Your task to perform on an android device: turn on the 12-hour format for clock Image 0: 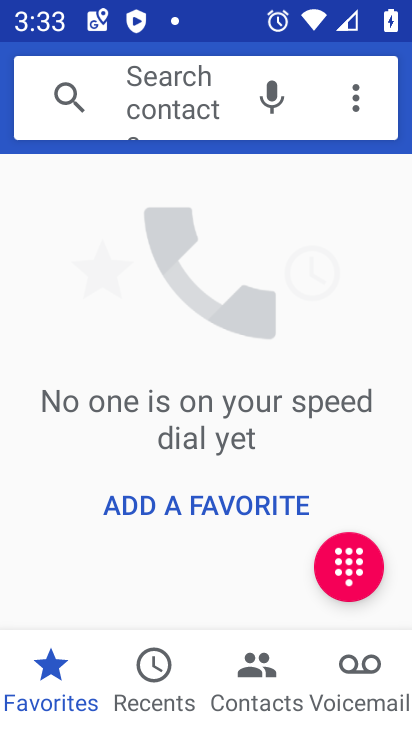
Step 0: press home button
Your task to perform on an android device: turn on the 12-hour format for clock Image 1: 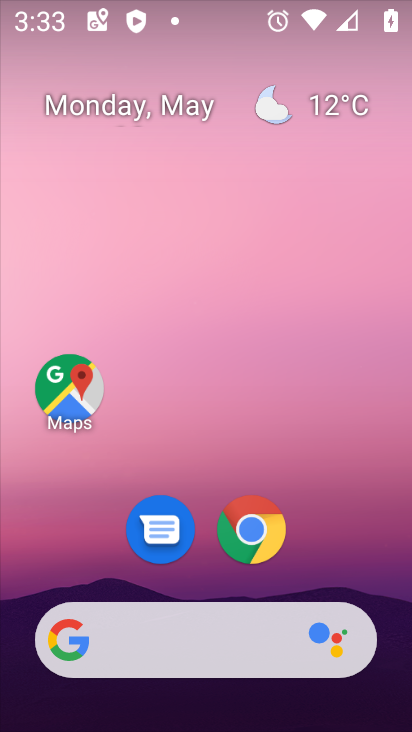
Step 1: drag from (337, 557) to (393, 397)
Your task to perform on an android device: turn on the 12-hour format for clock Image 2: 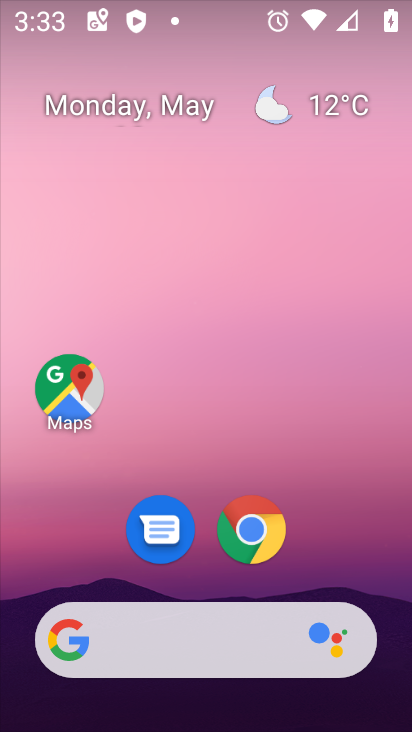
Step 2: drag from (329, 581) to (334, 0)
Your task to perform on an android device: turn on the 12-hour format for clock Image 3: 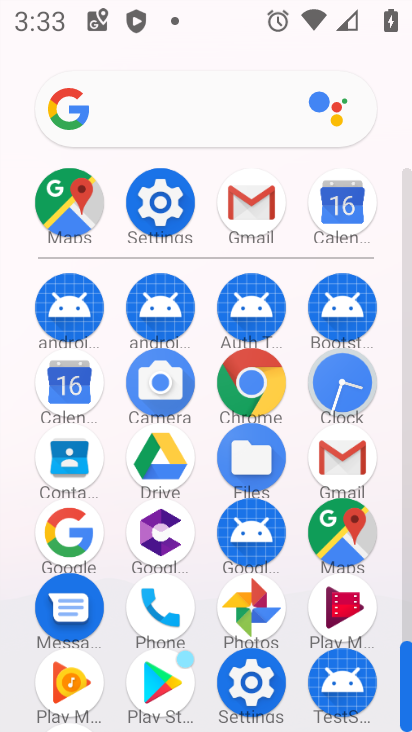
Step 3: click (330, 389)
Your task to perform on an android device: turn on the 12-hour format for clock Image 4: 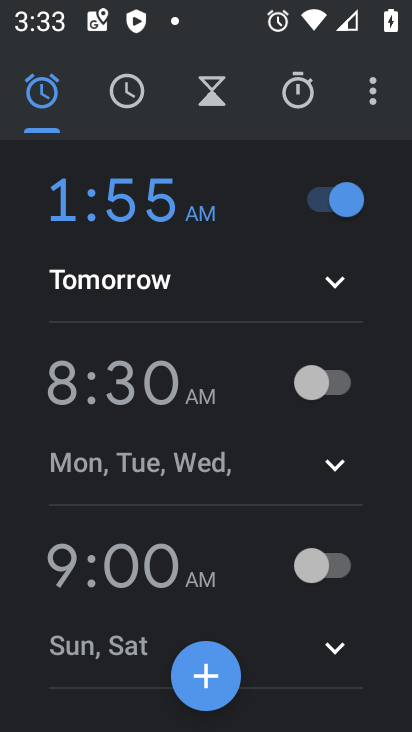
Step 4: click (360, 99)
Your task to perform on an android device: turn on the 12-hour format for clock Image 5: 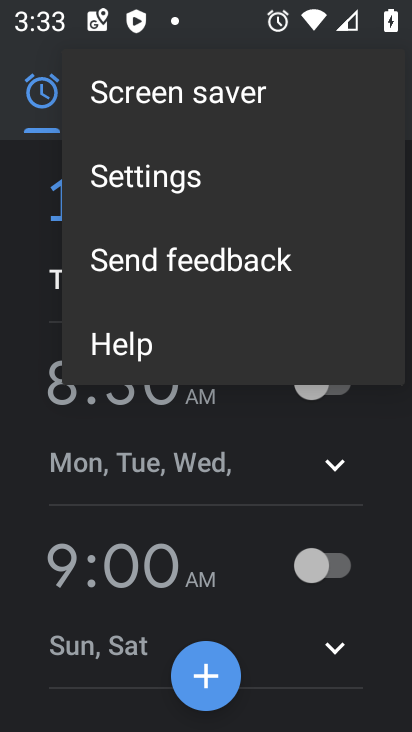
Step 5: click (223, 175)
Your task to perform on an android device: turn on the 12-hour format for clock Image 6: 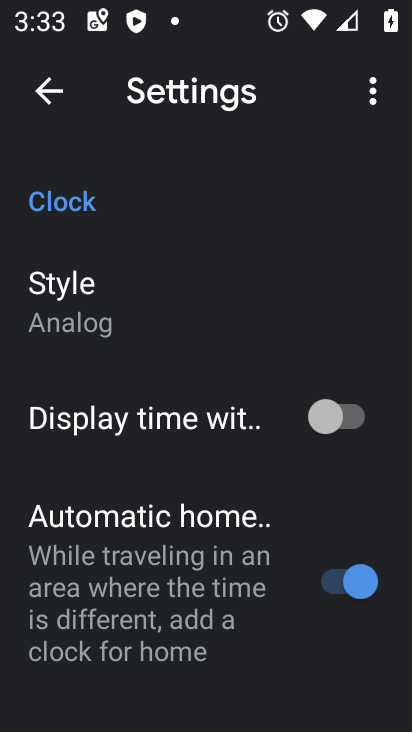
Step 6: drag from (218, 615) to (247, 190)
Your task to perform on an android device: turn on the 12-hour format for clock Image 7: 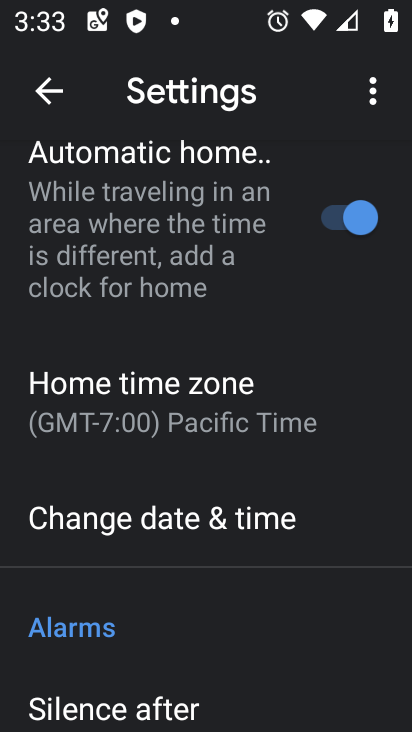
Step 7: click (175, 531)
Your task to perform on an android device: turn on the 12-hour format for clock Image 8: 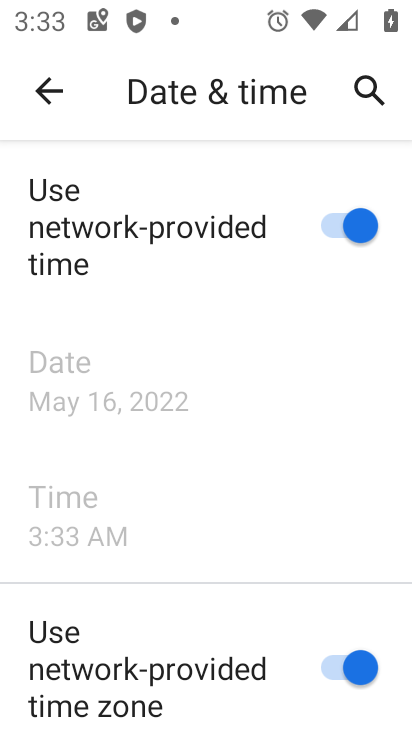
Step 8: task complete